Your task to perform on an android device: Go to network settings Image 0: 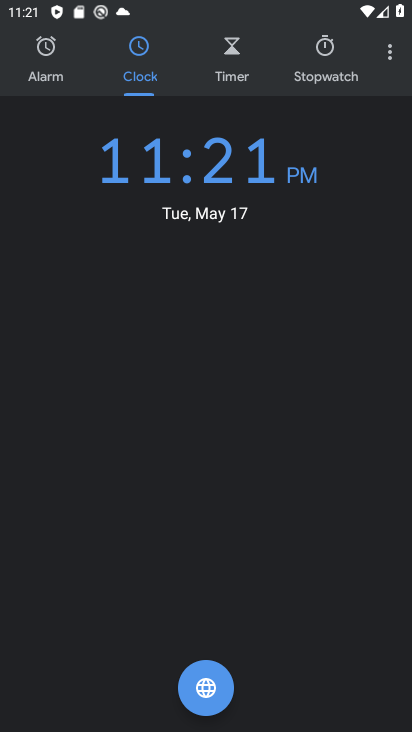
Step 0: press home button
Your task to perform on an android device: Go to network settings Image 1: 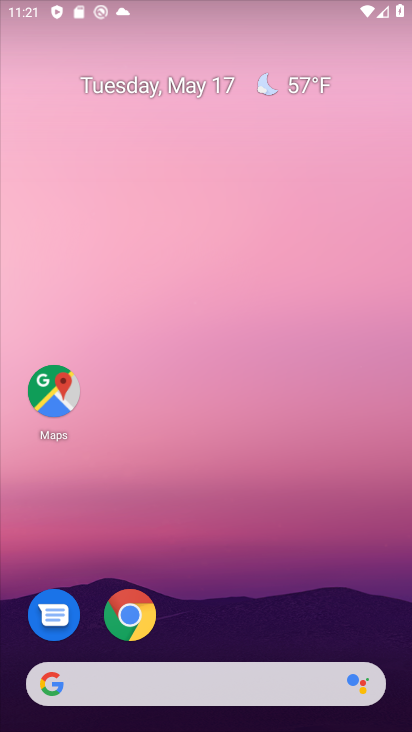
Step 1: drag from (387, 620) to (156, 76)
Your task to perform on an android device: Go to network settings Image 2: 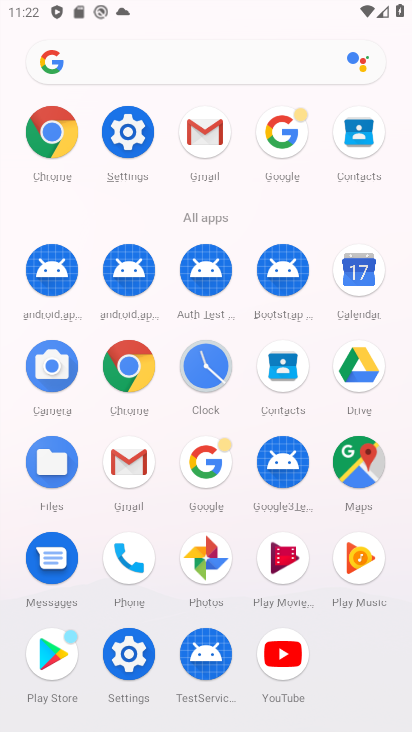
Step 2: click (124, 135)
Your task to perform on an android device: Go to network settings Image 3: 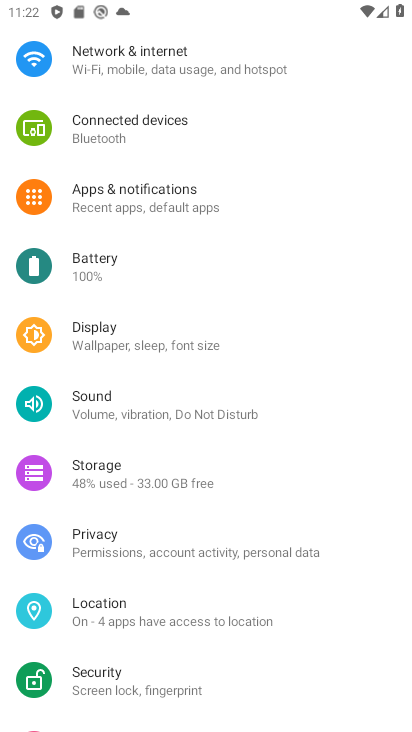
Step 3: drag from (128, 132) to (241, 592)
Your task to perform on an android device: Go to network settings Image 4: 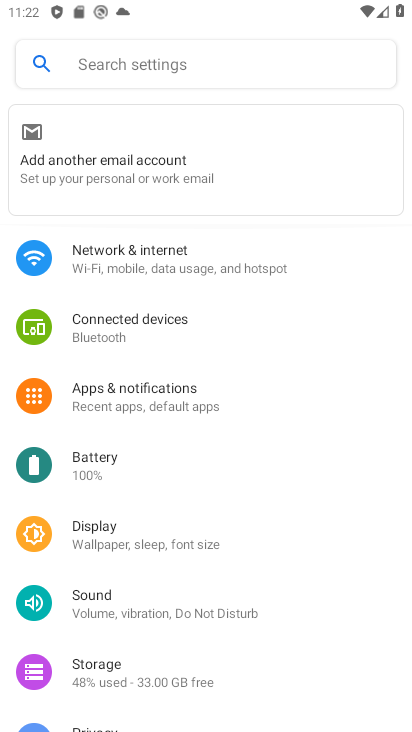
Step 4: click (142, 257)
Your task to perform on an android device: Go to network settings Image 5: 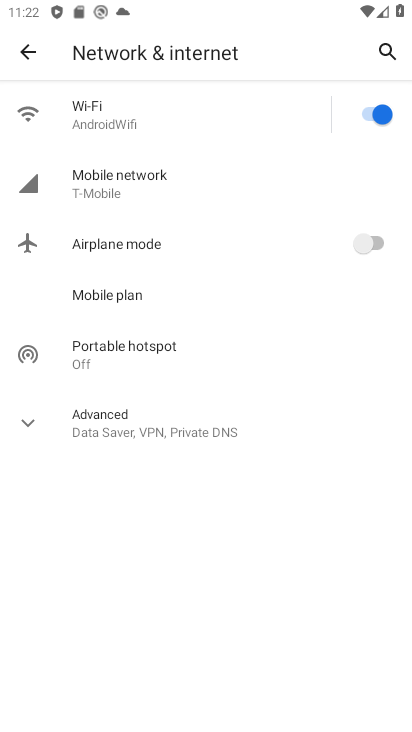
Step 5: task complete